Your task to perform on an android device: find which apps use the phone's location Image 0: 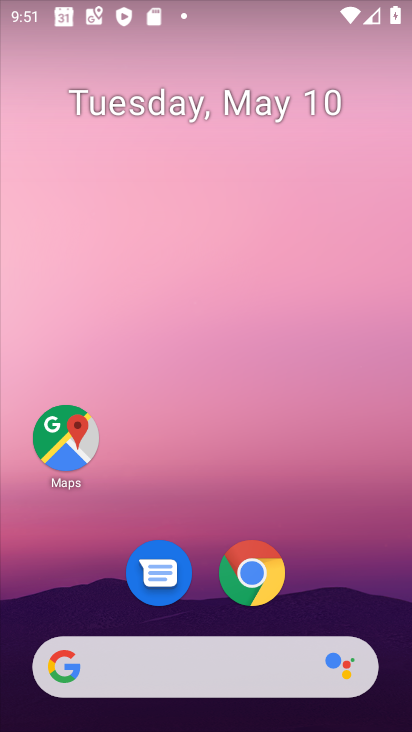
Step 0: drag from (315, 561) to (215, 155)
Your task to perform on an android device: find which apps use the phone's location Image 1: 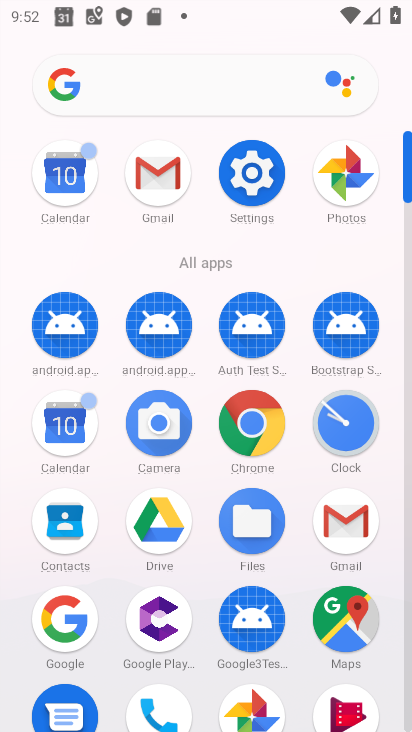
Step 1: click (246, 164)
Your task to perform on an android device: find which apps use the phone's location Image 2: 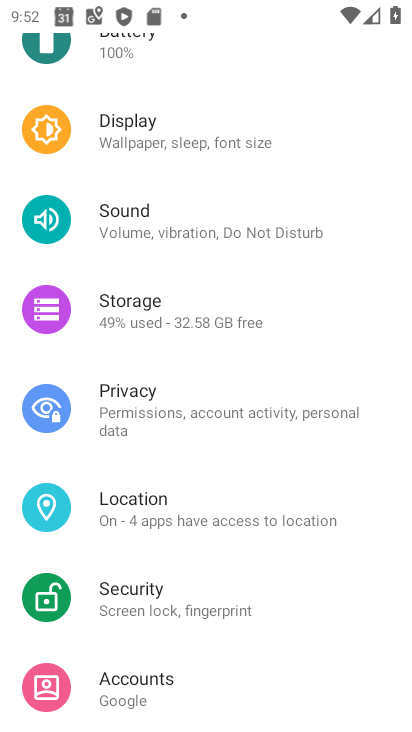
Step 2: click (136, 504)
Your task to perform on an android device: find which apps use the phone's location Image 3: 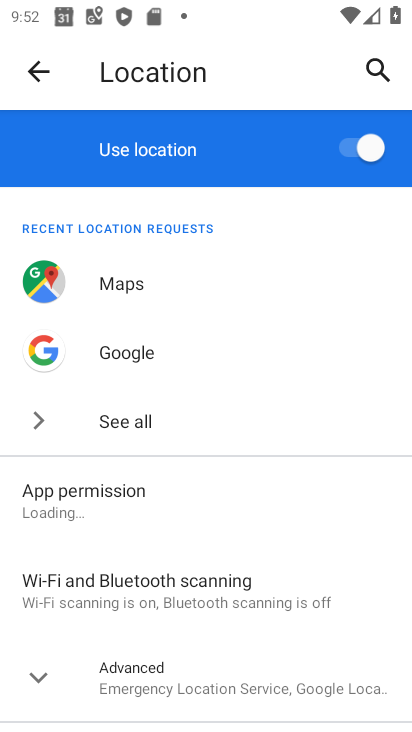
Step 3: click (134, 419)
Your task to perform on an android device: find which apps use the phone's location Image 4: 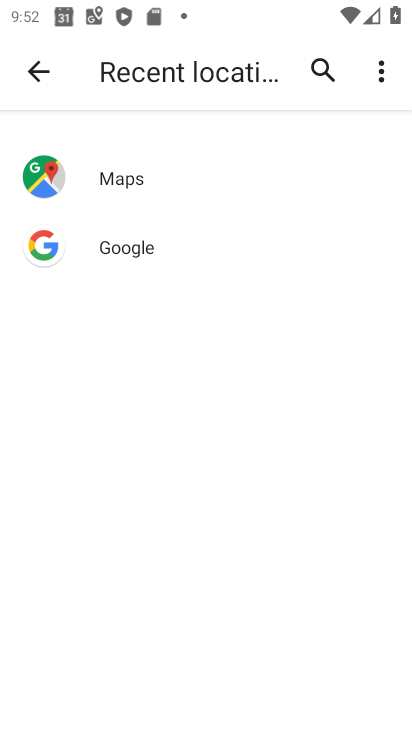
Step 4: task complete